Your task to perform on an android device: turn off location Image 0: 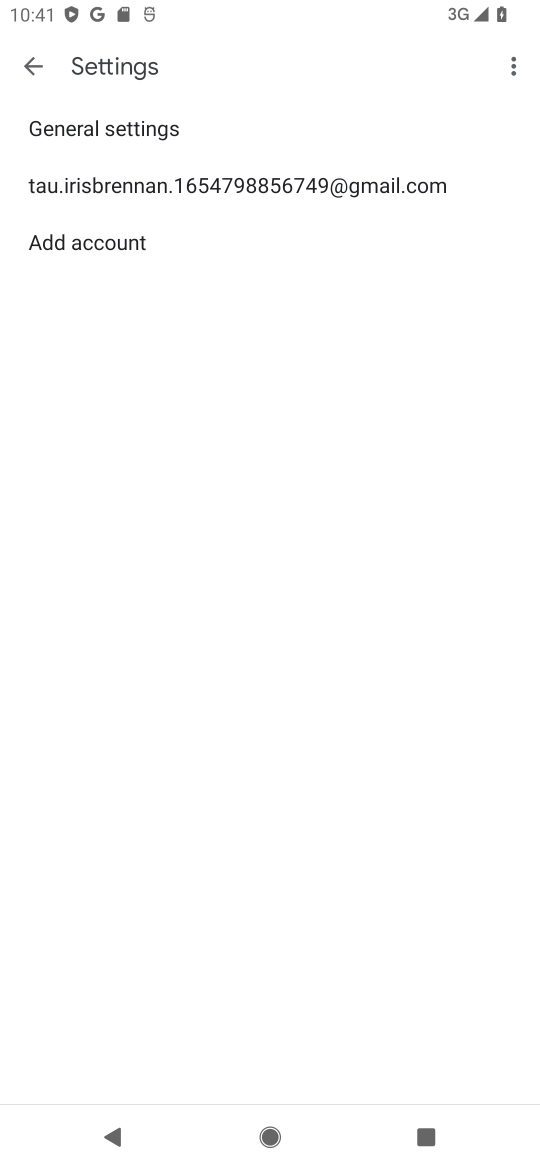
Step 0: press home button
Your task to perform on an android device: turn off location Image 1: 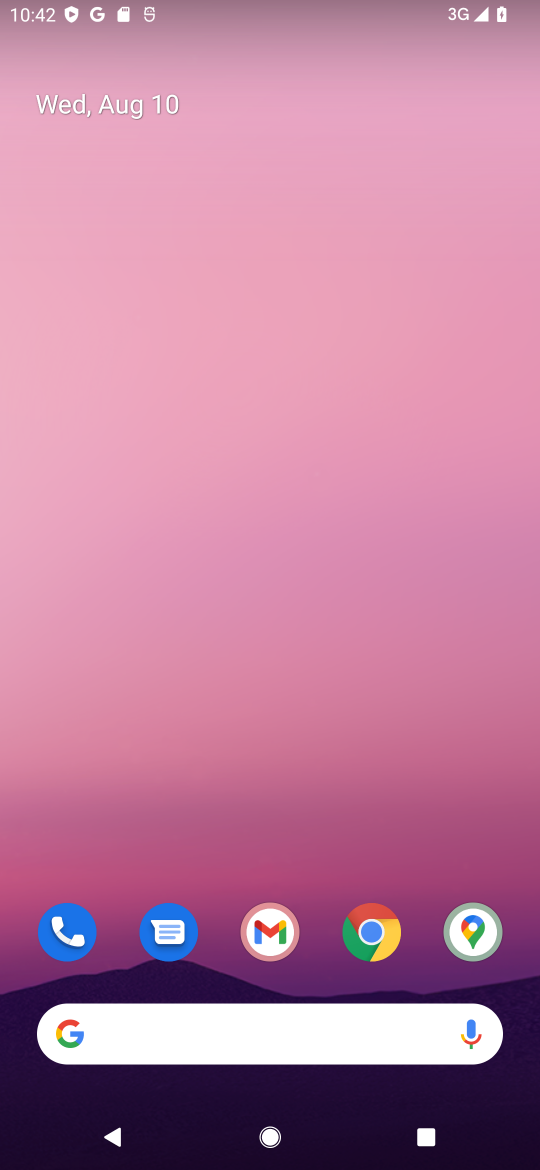
Step 1: drag from (323, 829) to (290, 152)
Your task to perform on an android device: turn off location Image 2: 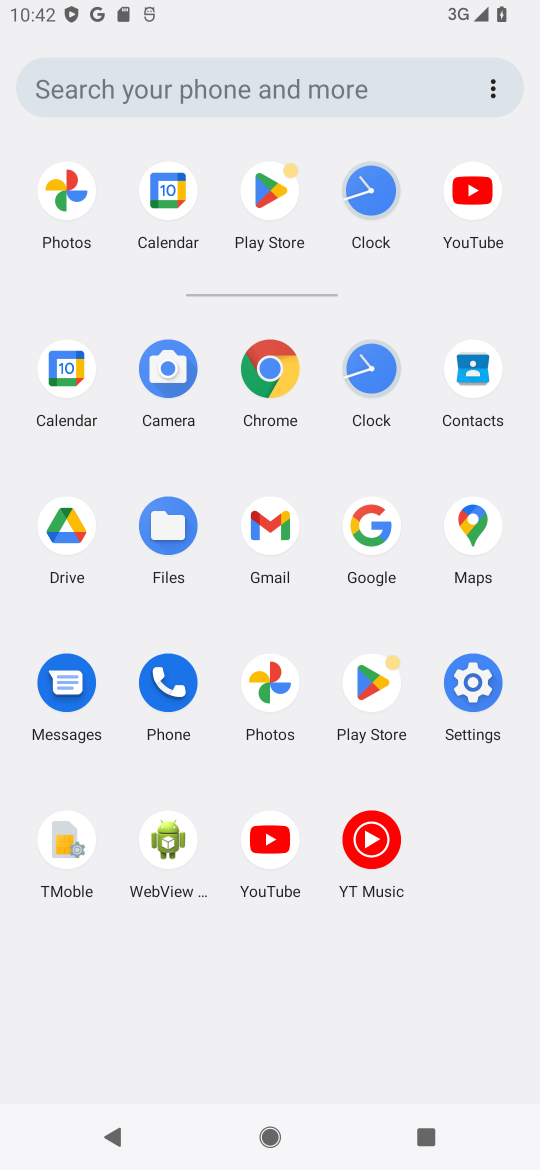
Step 2: click (468, 681)
Your task to perform on an android device: turn off location Image 3: 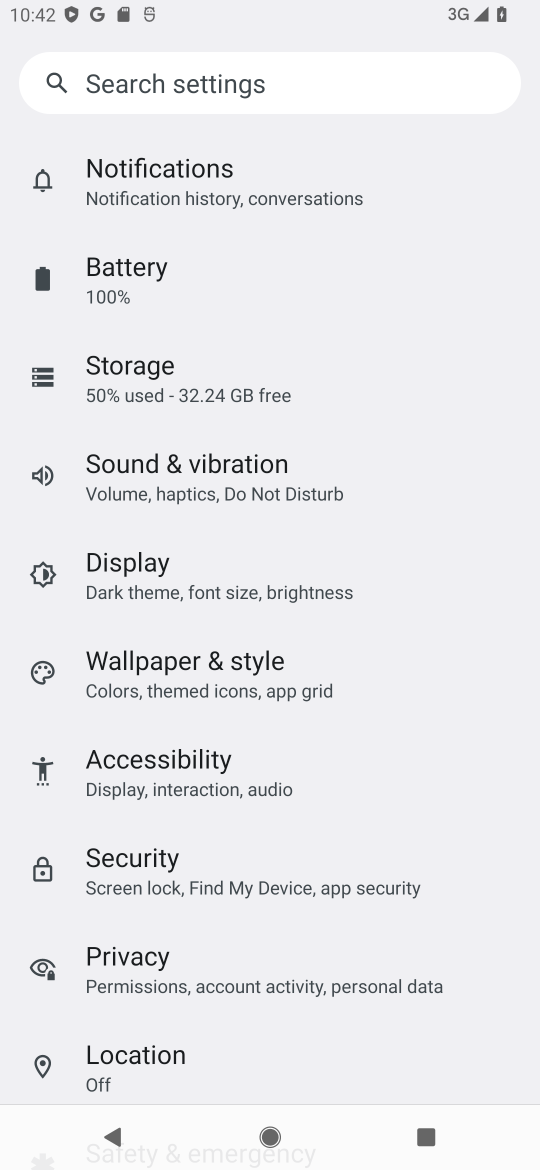
Step 3: click (136, 1045)
Your task to perform on an android device: turn off location Image 4: 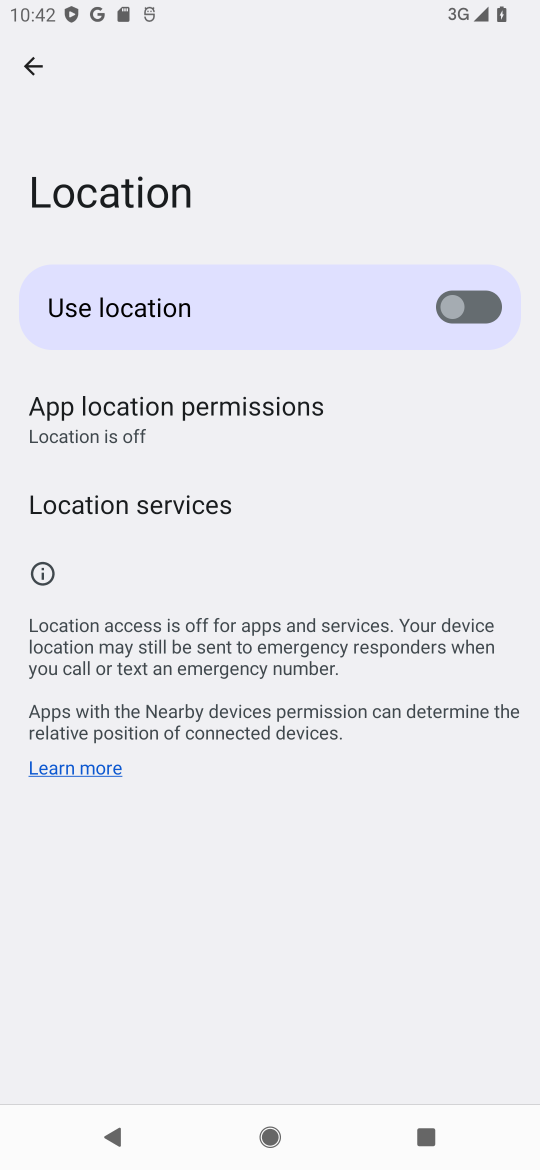
Step 4: task complete